Your task to perform on an android device: turn pop-ups off in chrome Image 0: 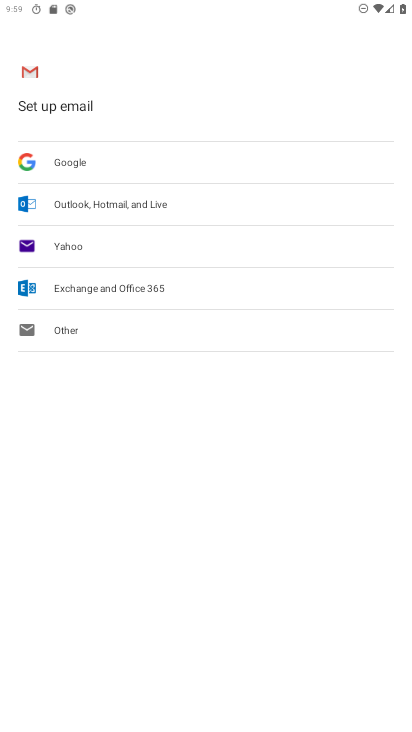
Step 0: press home button
Your task to perform on an android device: turn pop-ups off in chrome Image 1: 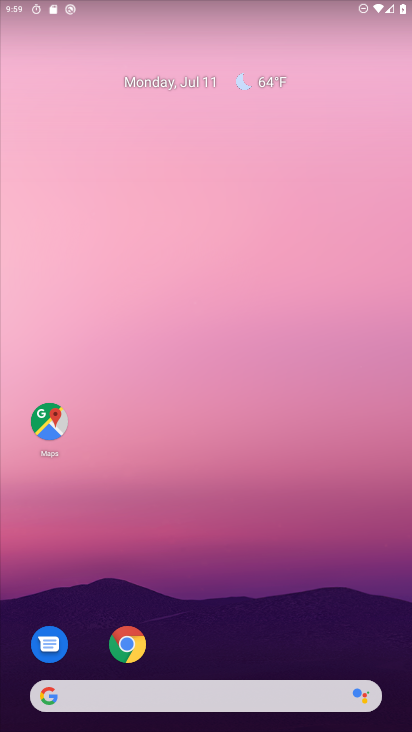
Step 1: click (126, 639)
Your task to perform on an android device: turn pop-ups off in chrome Image 2: 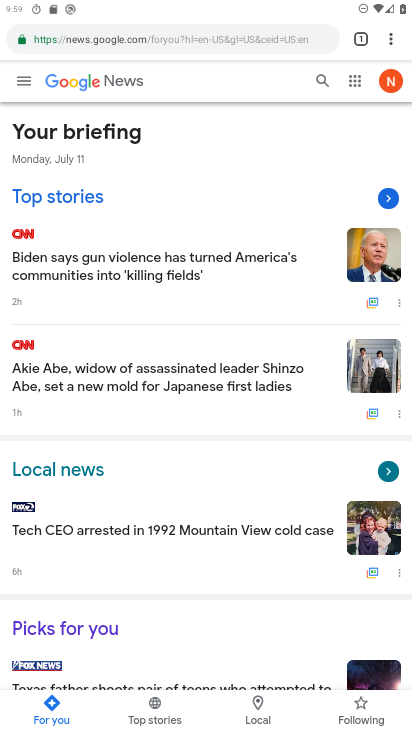
Step 2: drag from (392, 35) to (261, 518)
Your task to perform on an android device: turn pop-ups off in chrome Image 3: 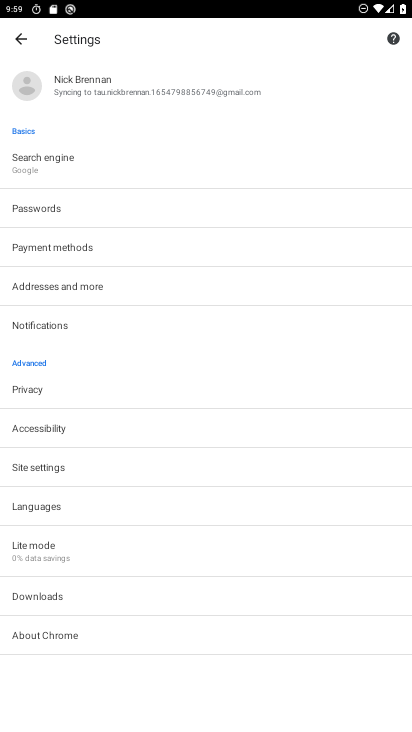
Step 3: click (82, 471)
Your task to perform on an android device: turn pop-ups off in chrome Image 4: 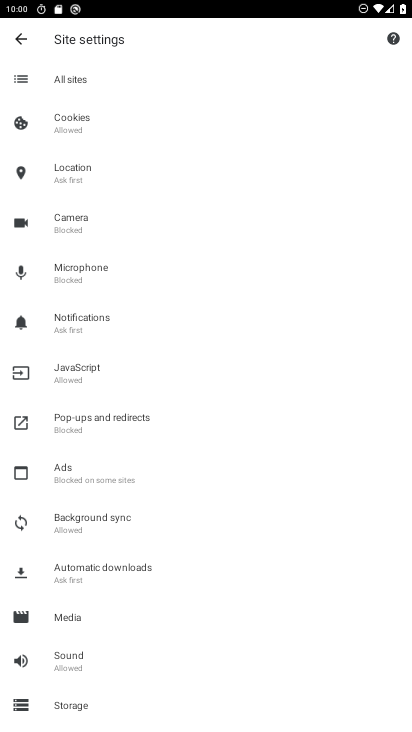
Step 4: click (92, 418)
Your task to perform on an android device: turn pop-ups off in chrome Image 5: 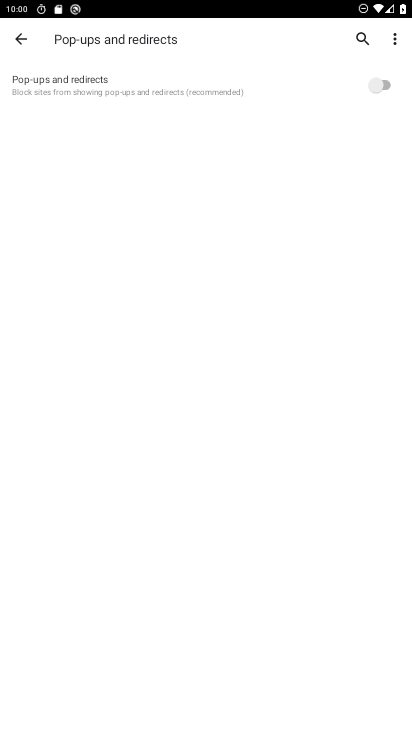
Step 5: task complete